Your task to perform on an android device: Go to sound settings Image 0: 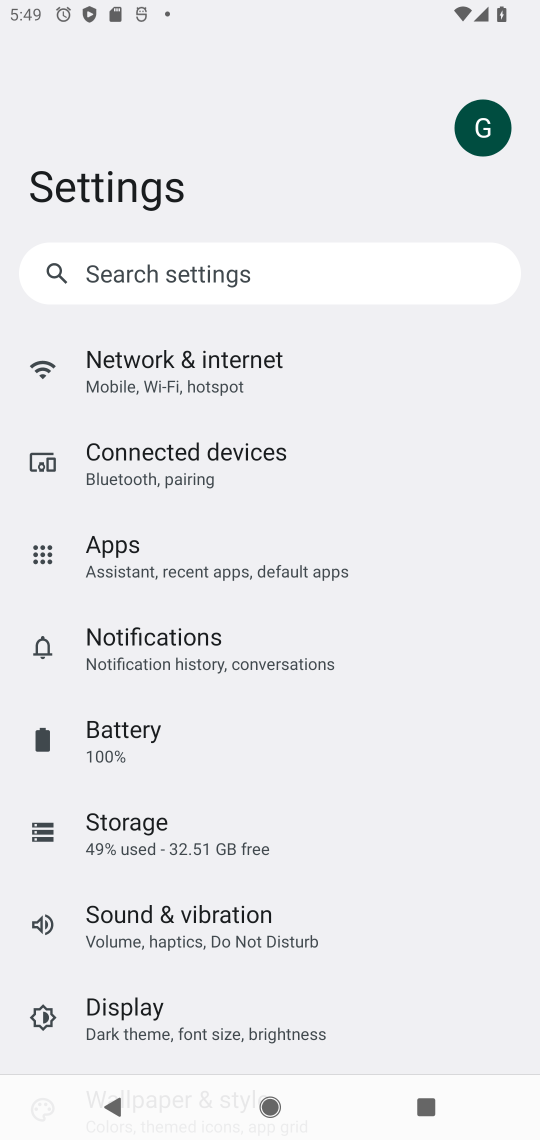
Step 0: click (180, 928)
Your task to perform on an android device: Go to sound settings Image 1: 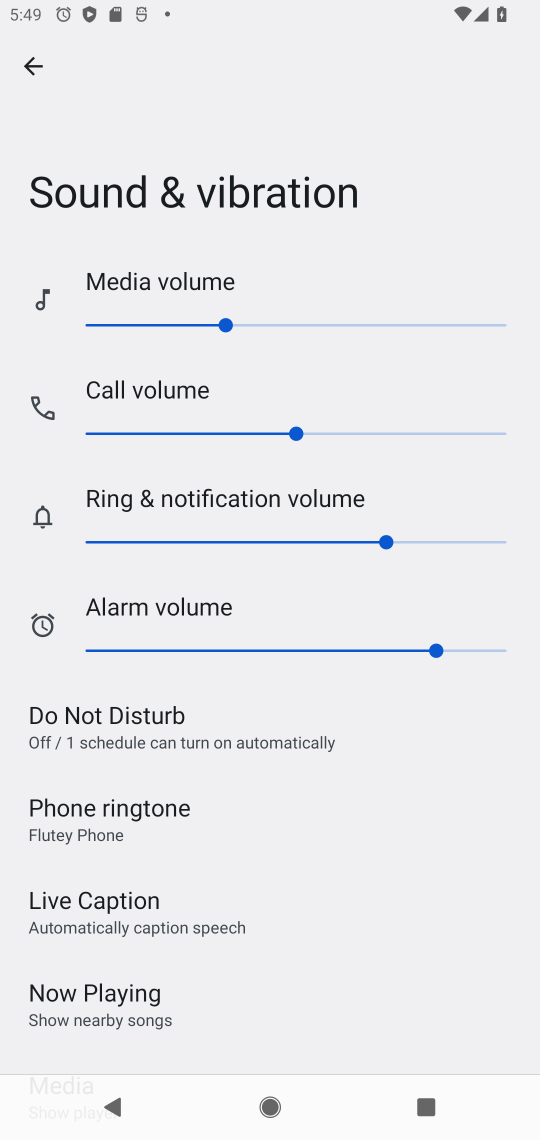
Step 1: task complete